Your task to perform on an android device: turn on airplane mode Image 0: 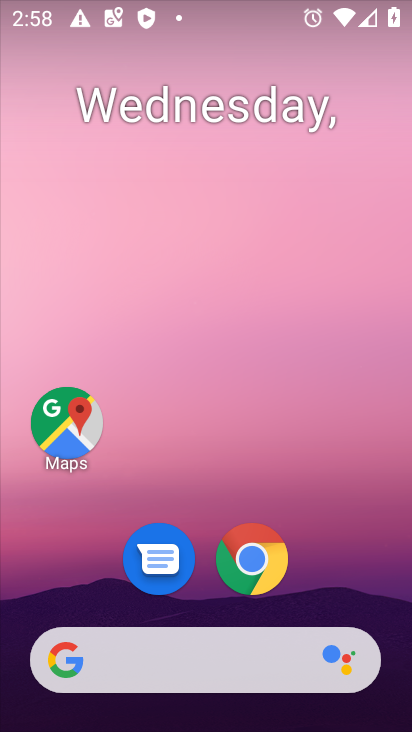
Step 0: drag from (205, 482) to (199, 22)
Your task to perform on an android device: turn on airplane mode Image 1: 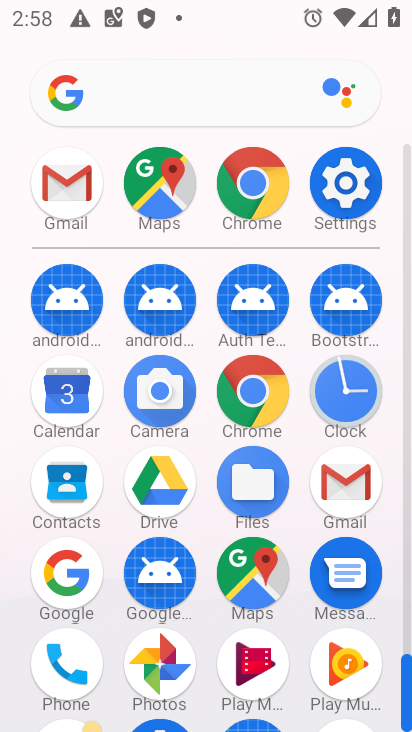
Step 1: click (337, 178)
Your task to perform on an android device: turn on airplane mode Image 2: 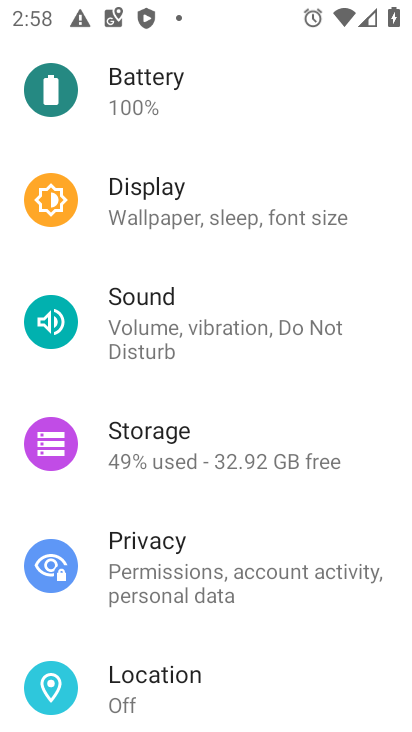
Step 2: drag from (147, 151) to (196, 635)
Your task to perform on an android device: turn on airplane mode Image 3: 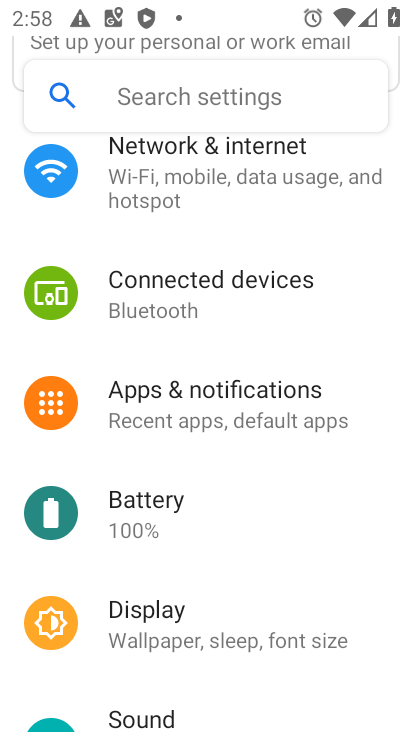
Step 3: drag from (200, 203) to (233, 587)
Your task to perform on an android device: turn on airplane mode Image 4: 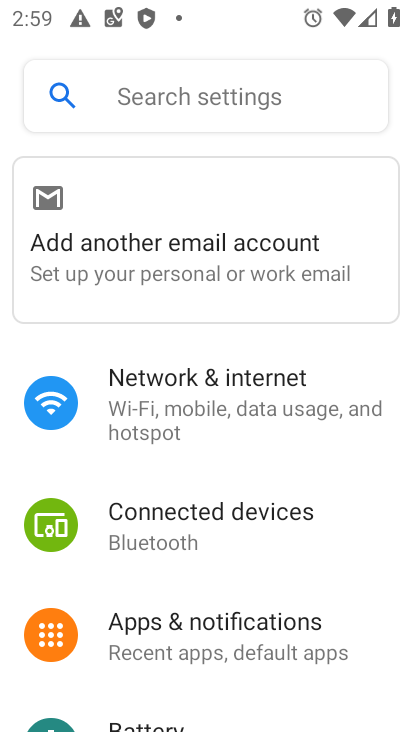
Step 4: click (206, 405)
Your task to perform on an android device: turn on airplane mode Image 5: 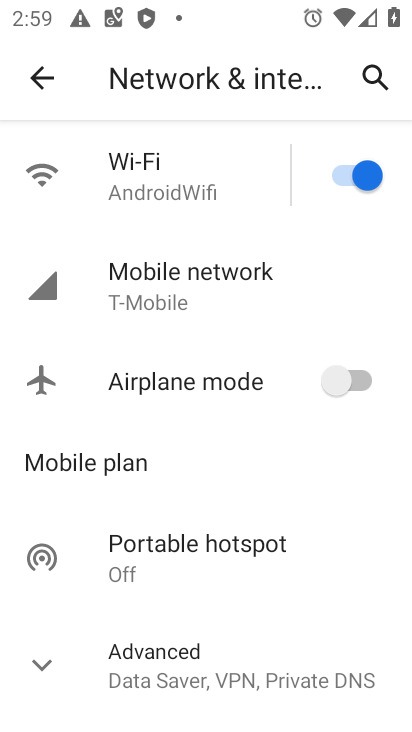
Step 5: click (354, 383)
Your task to perform on an android device: turn on airplane mode Image 6: 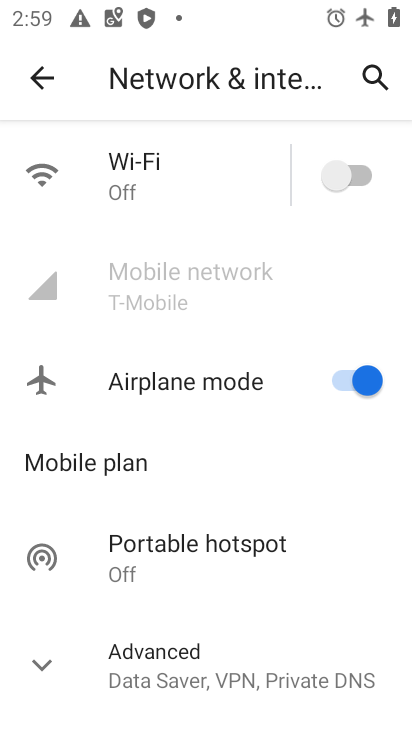
Step 6: task complete